Your task to perform on an android device: all mails in gmail Image 0: 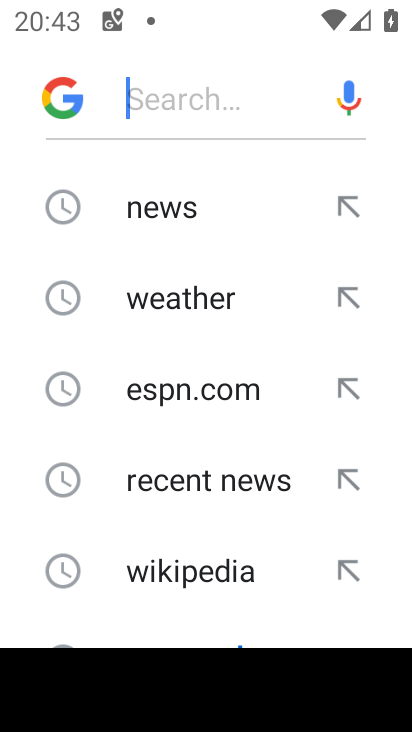
Step 0: press home button
Your task to perform on an android device: all mails in gmail Image 1: 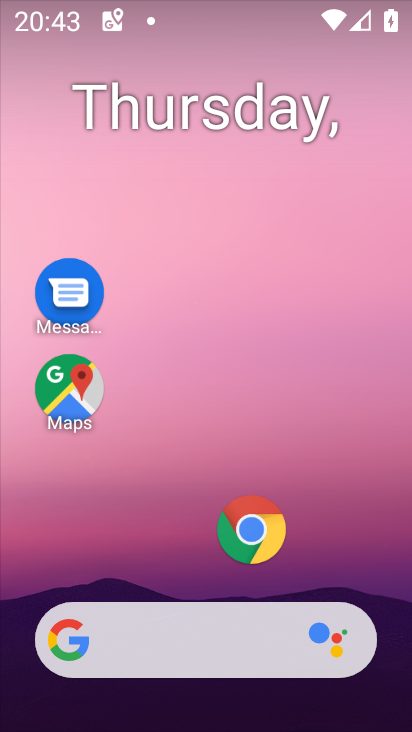
Step 1: drag from (148, 589) to (224, 132)
Your task to perform on an android device: all mails in gmail Image 2: 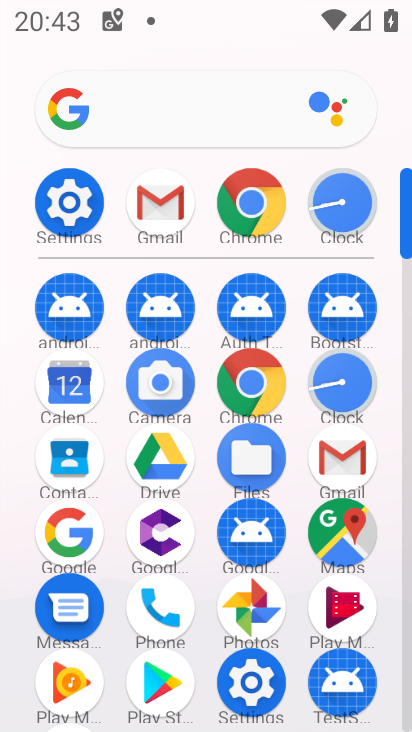
Step 2: click (165, 213)
Your task to perform on an android device: all mails in gmail Image 3: 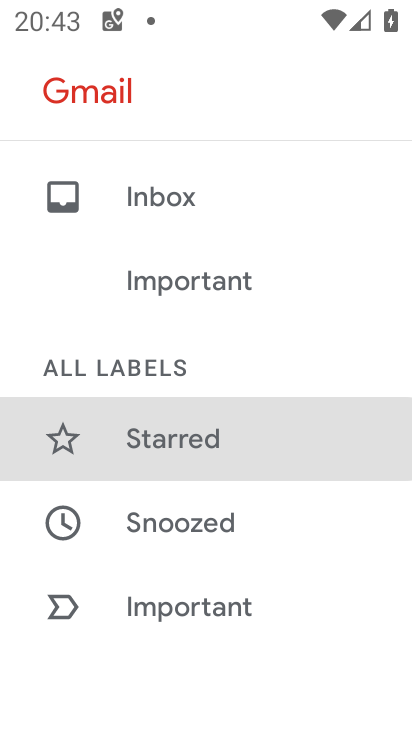
Step 3: drag from (118, 618) to (183, 246)
Your task to perform on an android device: all mails in gmail Image 4: 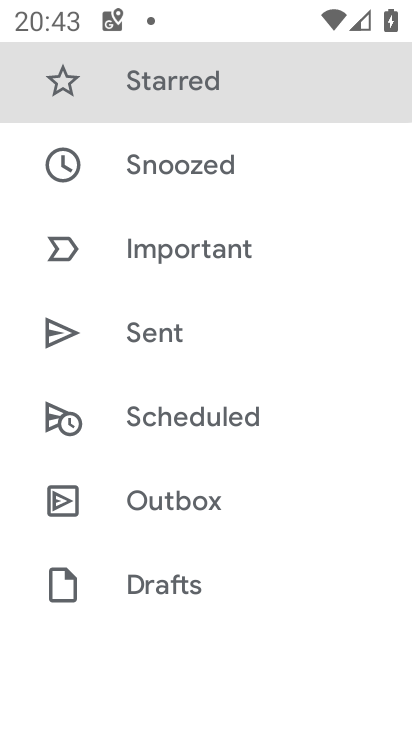
Step 4: drag from (127, 605) to (107, 152)
Your task to perform on an android device: all mails in gmail Image 5: 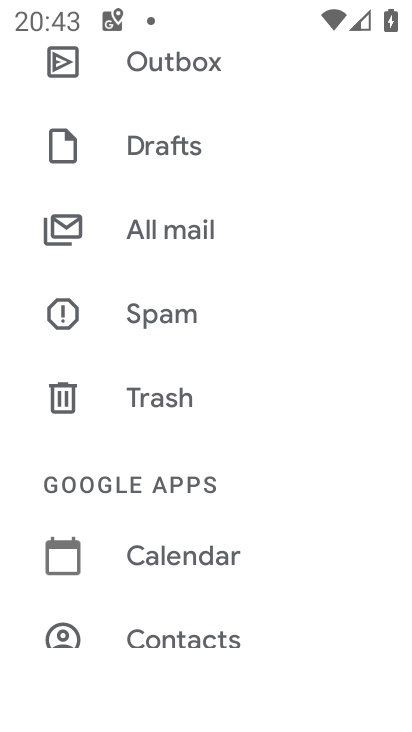
Step 5: click (179, 262)
Your task to perform on an android device: all mails in gmail Image 6: 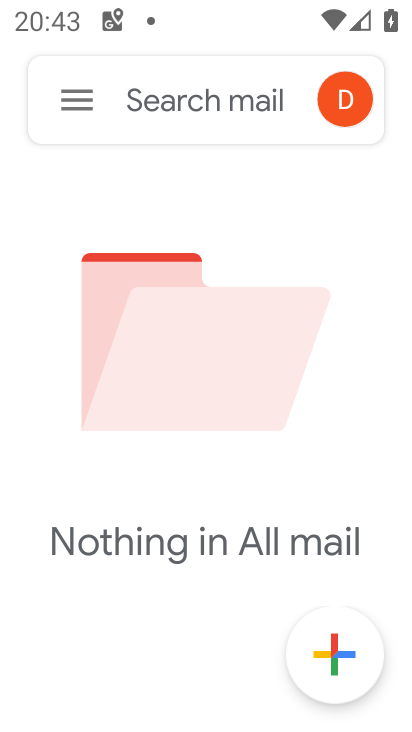
Step 6: task complete